Your task to perform on an android device: star an email in the gmail app Image 0: 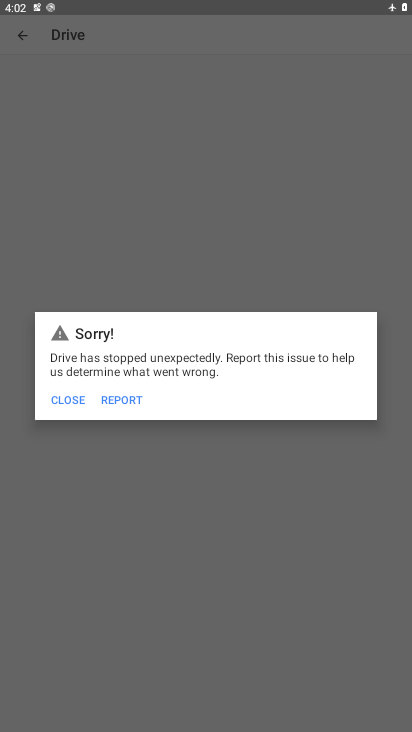
Step 0: press home button
Your task to perform on an android device: star an email in the gmail app Image 1: 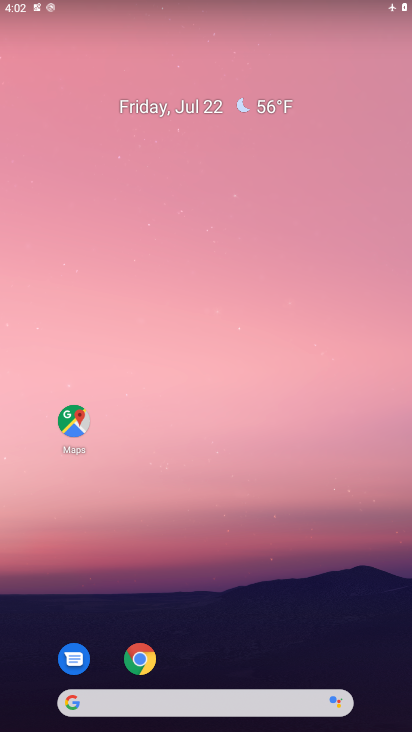
Step 1: drag from (151, 685) to (181, 217)
Your task to perform on an android device: star an email in the gmail app Image 2: 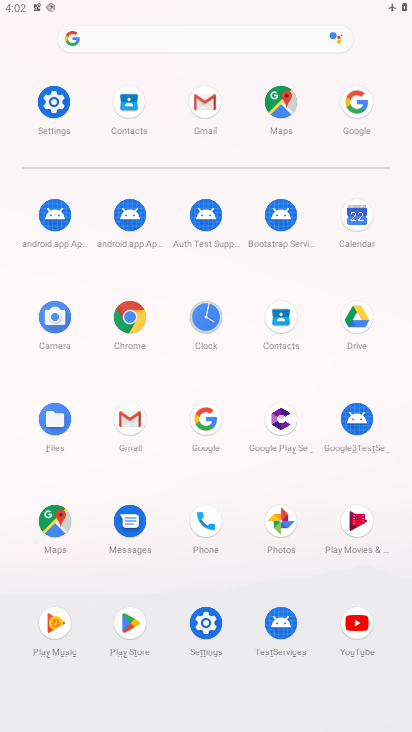
Step 2: click (130, 417)
Your task to perform on an android device: star an email in the gmail app Image 3: 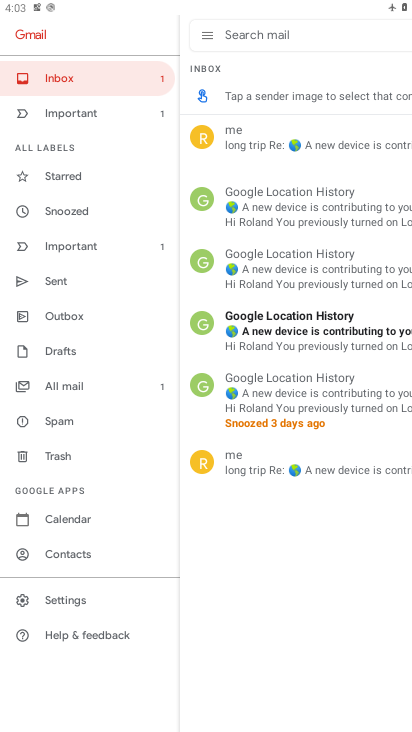
Step 3: click (348, 138)
Your task to perform on an android device: star an email in the gmail app Image 4: 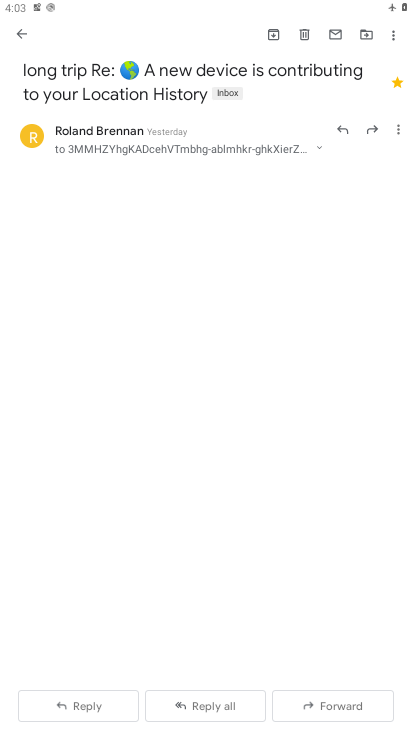
Step 4: task complete